Your task to perform on an android device: Open the web browser Image 0: 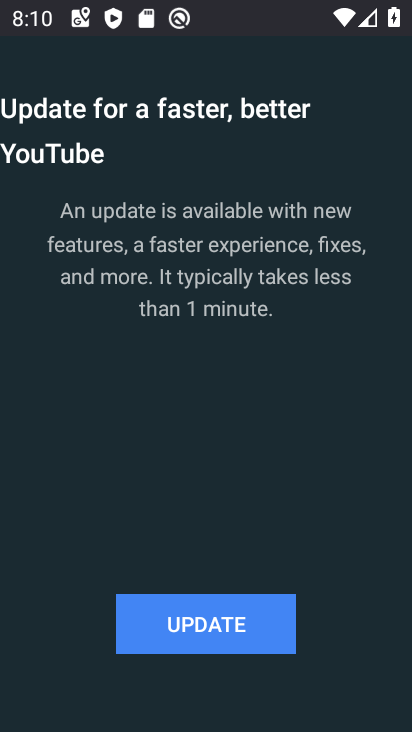
Step 0: press home button
Your task to perform on an android device: Open the web browser Image 1: 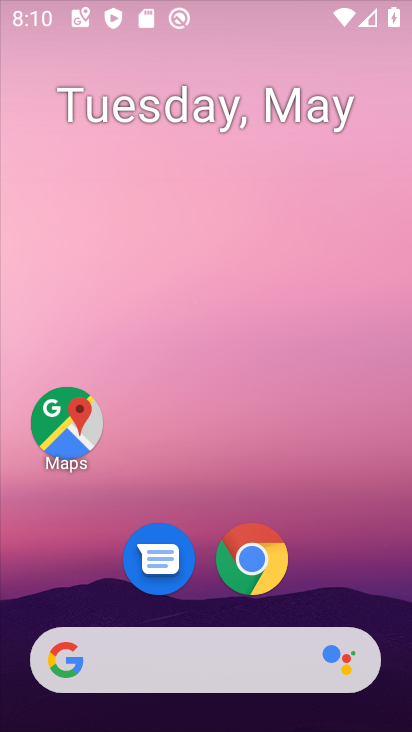
Step 1: drag from (392, 575) to (341, 111)
Your task to perform on an android device: Open the web browser Image 2: 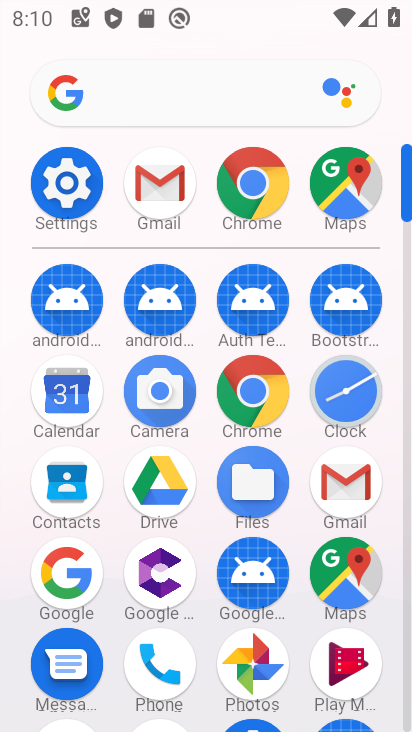
Step 2: click (240, 185)
Your task to perform on an android device: Open the web browser Image 3: 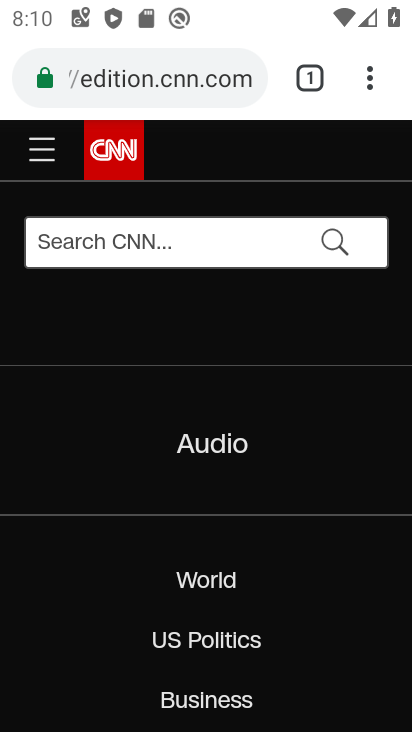
Step 3: task complete